Your task to perform on an android device: change text size in settings app Image 0: 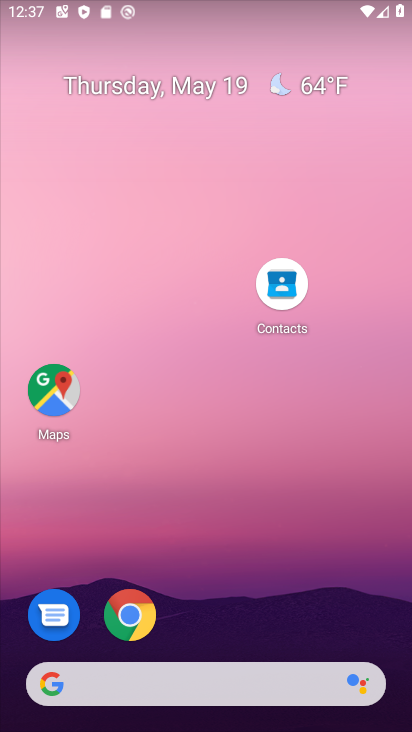
Step 0: drag from (245, 578) to (260, 151)
Your task to perform on an android device: change text size in settings app Image 1: 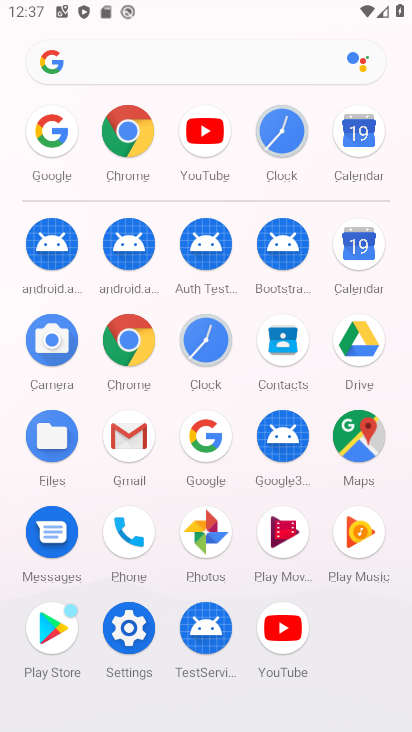
Step 1: click (130, 635)
Your task to perform on an android device: change text size in settings app Image 2: 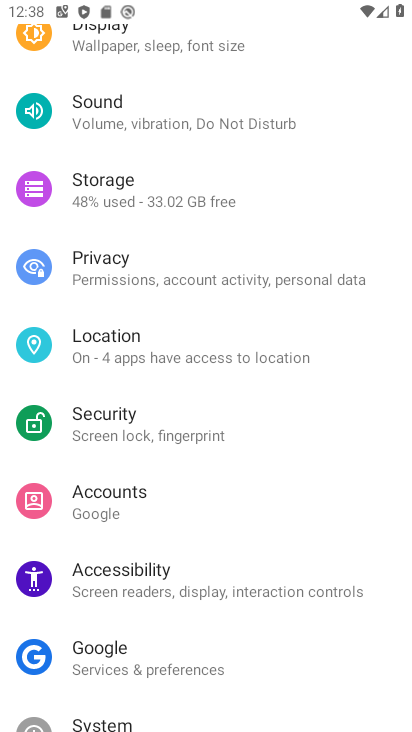
Step 2: drag from (225, 271) to (224, 551)
Your task to perform on an android device: change text size in settings app Image 3: 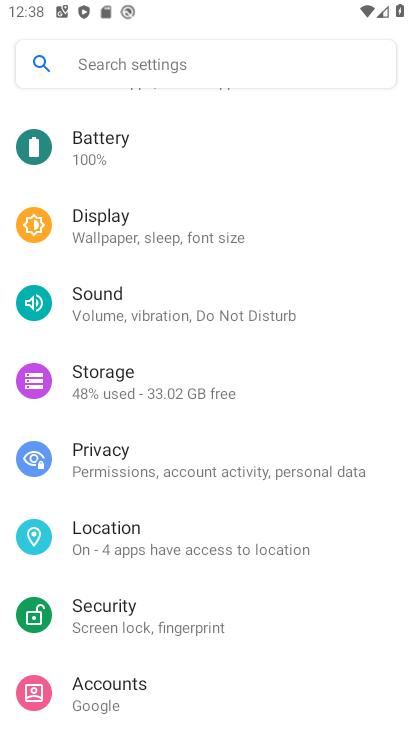
Step 3: drag from (244, 364) to (238, 643)
Your task to perform on an android device: change text size in settings app Image 4: 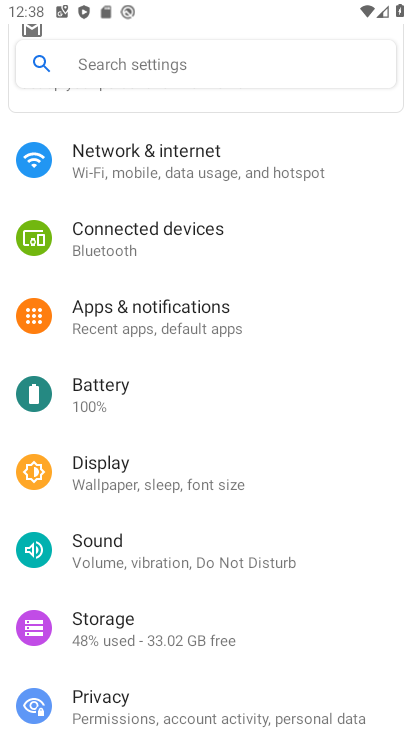
Step 4: drag from (148, 588) to (184, 266)
Your task to perform on an android device: change text size in settings app Image 5: 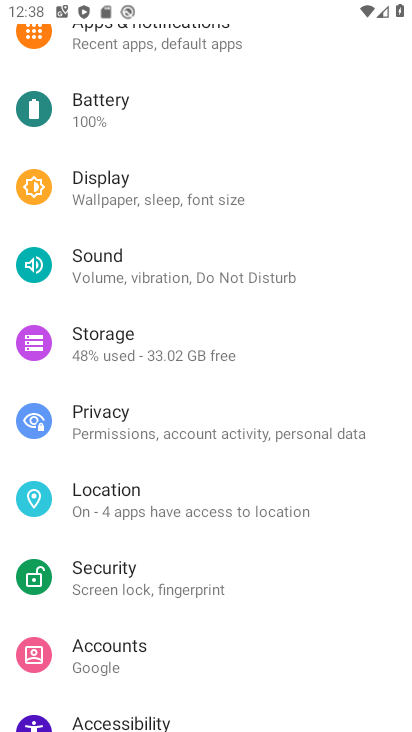
Step 5: drag from (170, 594) to (192, 185)
Your task to perform on an android device: change text size in settings app Image 6: 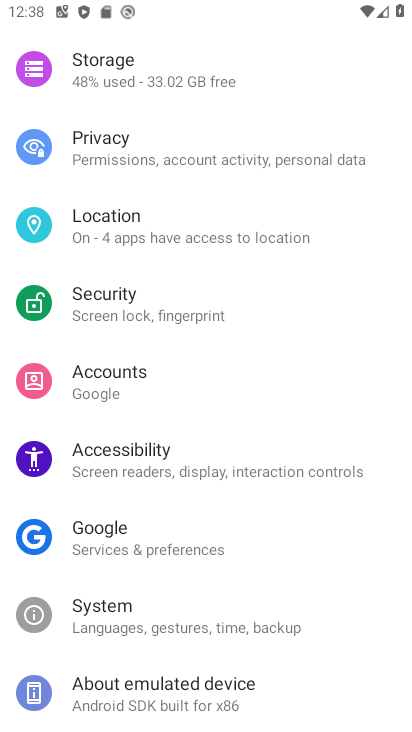
Step 6: click (149, 617)
Your task to perform on an android device: change text size in settings app Image 7: 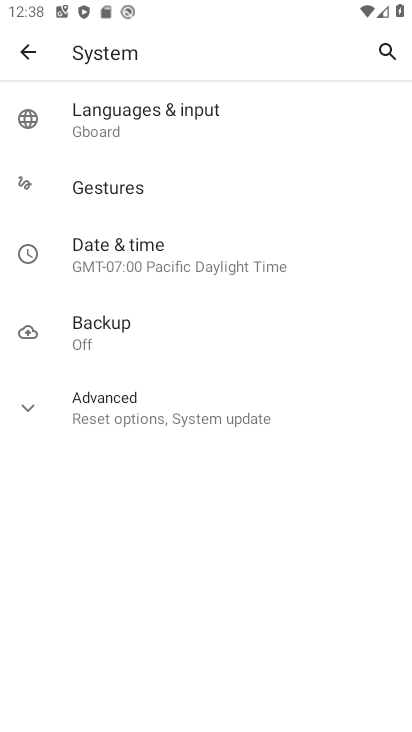
Step 7: click (209, 128)
Your task to perform on an android device: change text size in settings app Image 8: 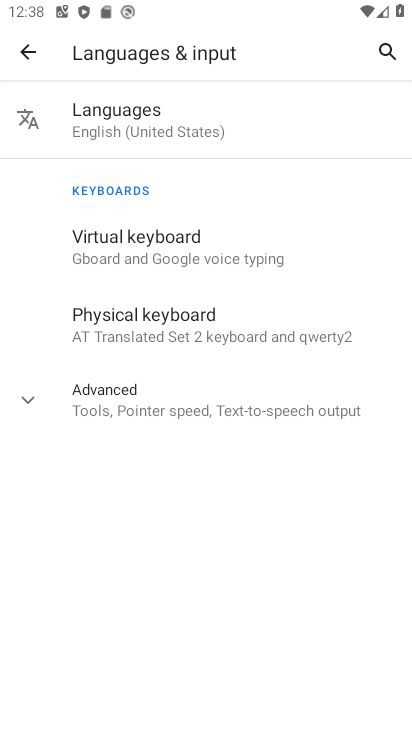
Step 8: click (180, 251)
Your task to perform on an android device: change text size in settings app Image 9: 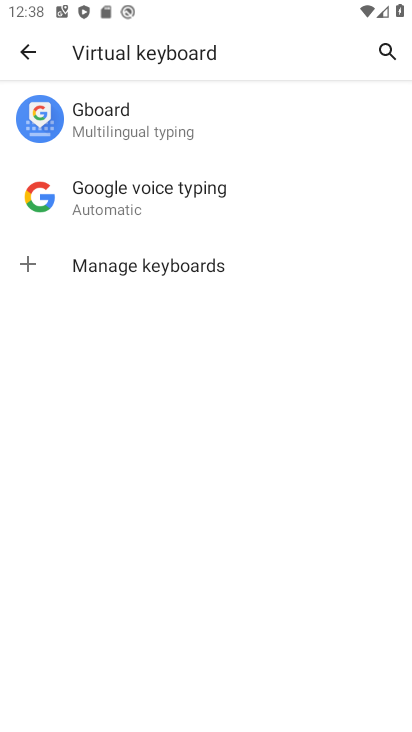
Step 9: click (200, 128)
Your task to perform on an android device: change text size in settings app Image 10: 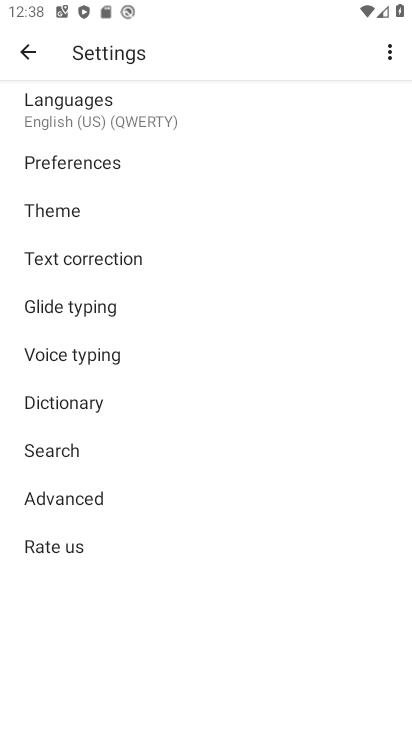
Step 10: click (124, 211)
Your task to perform on an android device: change text size in settings app Image 11: 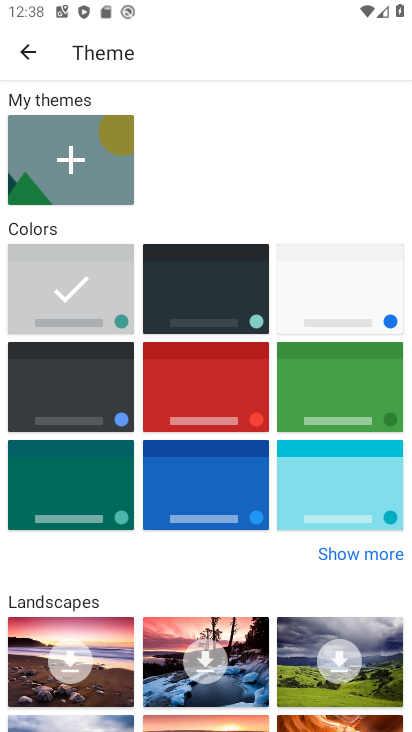
Step 11: click (339, 392)
Your task to perform on an android device: change text size in settings app Image 12: 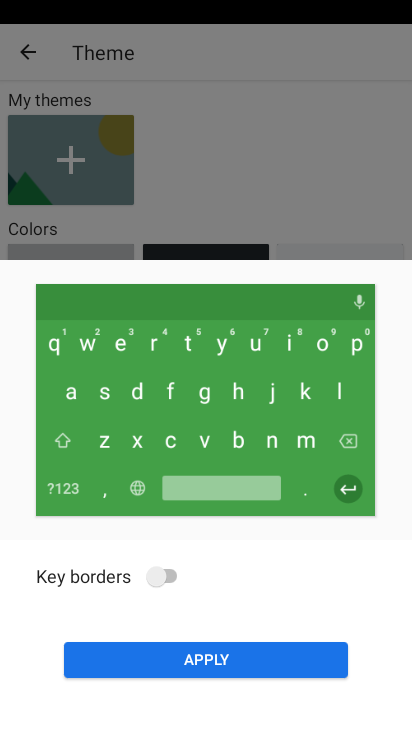
Step 12: click (199, 665)
Your task to perform on an android device: change text size in settings app Image 13: 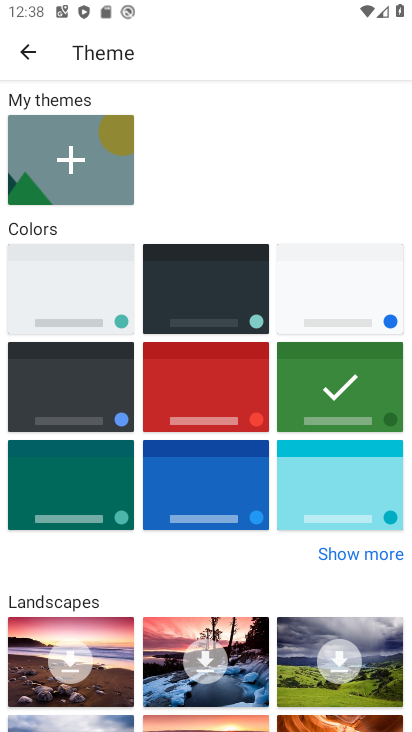
Step 13: task complete